Your task to perform on an android device: change the clock style Image 0: 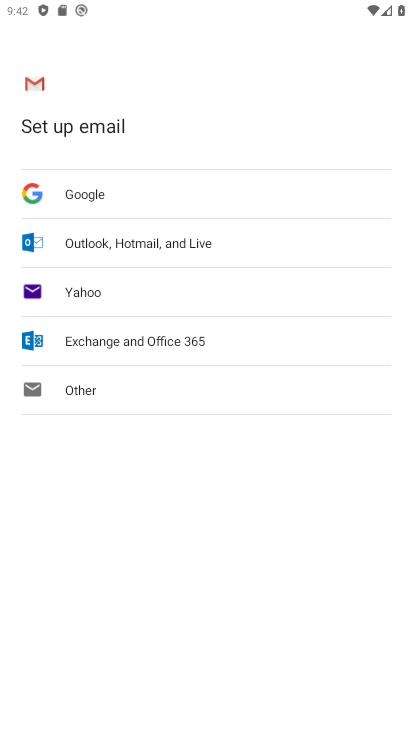
Step 0: press home button
Your task to perform on an android device: change the clock style Image 1: 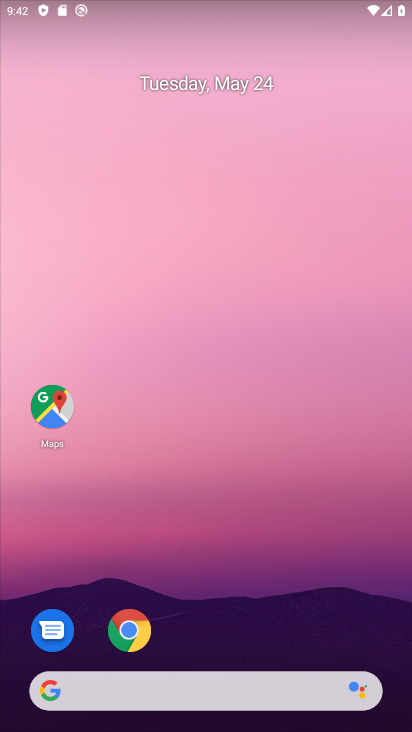
Step 1: drag from (217, 642) to (238, 42)
Your task to perform on an android device: change the clock style Image 2: 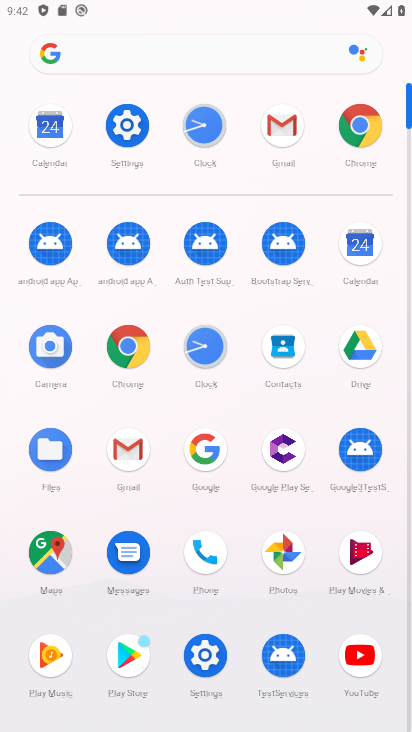
Step 2: click (197, 118)
Your task to perform on an android device: change the clock style Image 3: 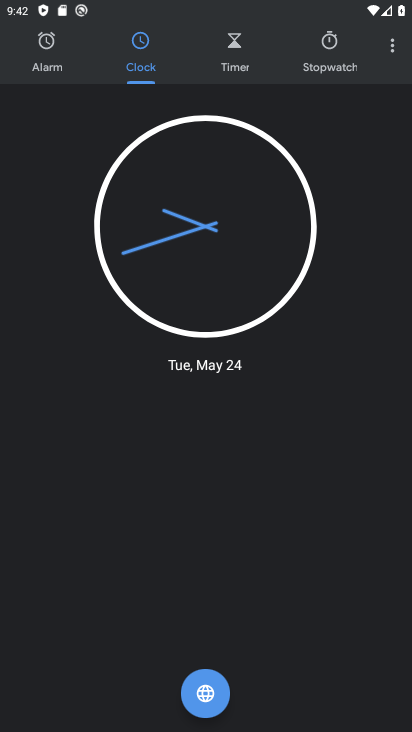
Step 3: click (376, 44)
Your task to perform on an android device: change the clock style Image 4: 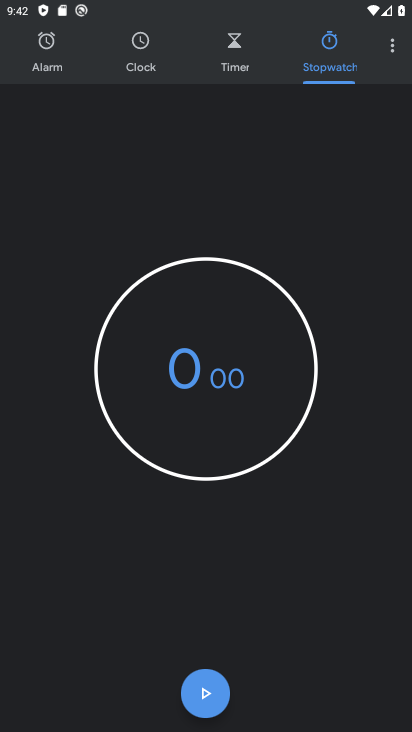
Step 4: click (389, 39)
Your task to perform on an android device: change the clock style Image 5: 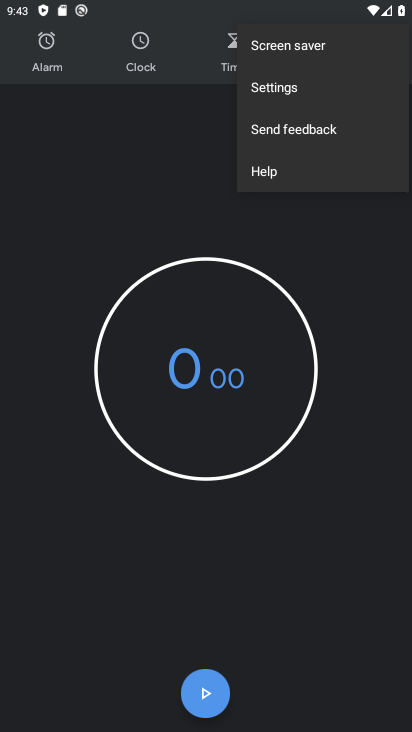
Step 5: click (306, 88)
Your task to perform on an android device: change the clock style Image 6: 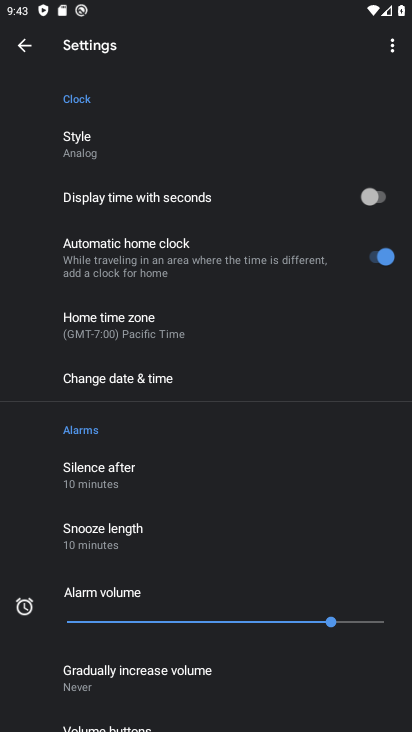
Step 6: click (114, 141)
Your task to perform on an android device: change the clock style Image 7: 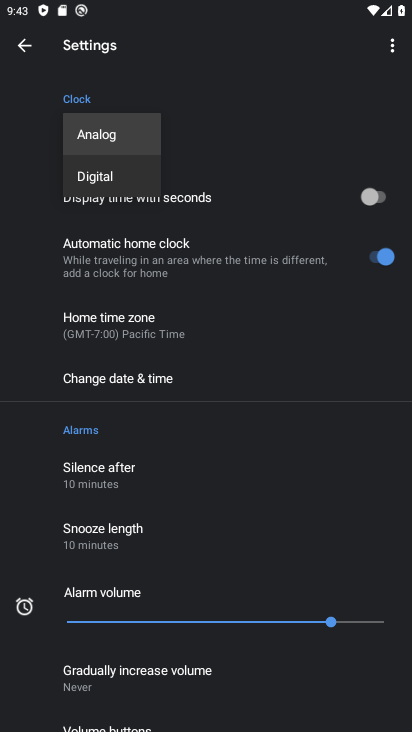
Step 7: click (116, 179)
Your task to perform on an android device: change the clock style Image 8: 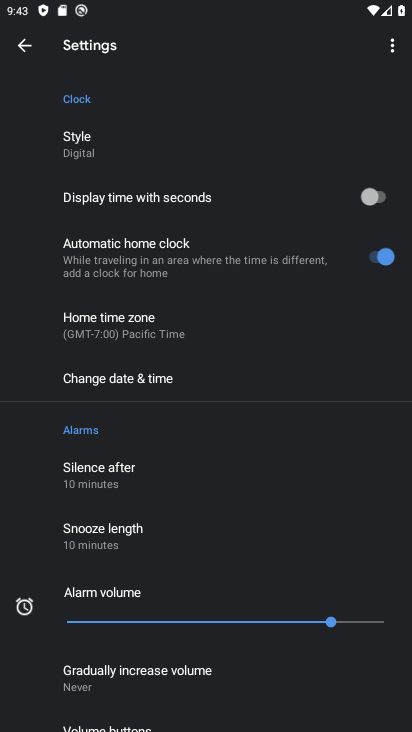
Step 8: task complete